Your task to perform on an android device: read, delete, or share a saved page in the chrome app Image 0: 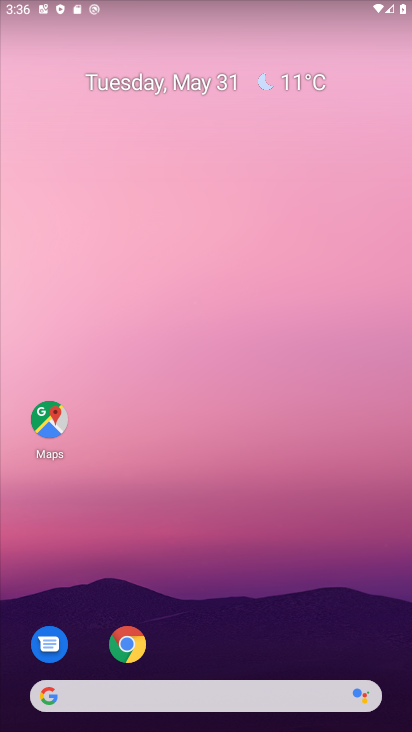
Step 0: click (121, 633)
Your task to perform on an android device: read, delete, or share a saved page in the chrome app Image 1: 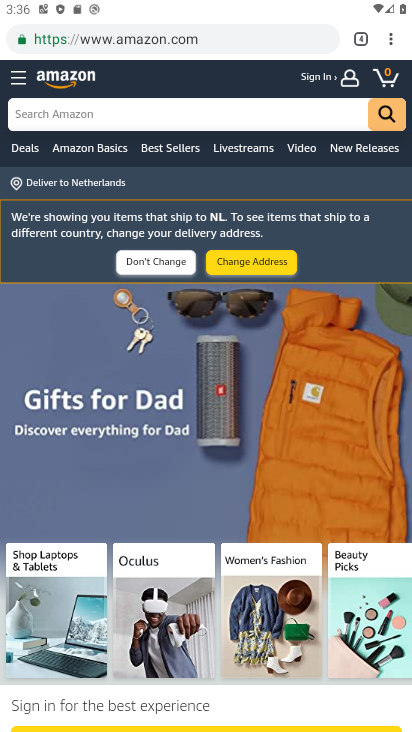
Step 1: click (387, 37)
Your task to perform on an android device: read, delete, or share a saved page in the chrome app Image 2: 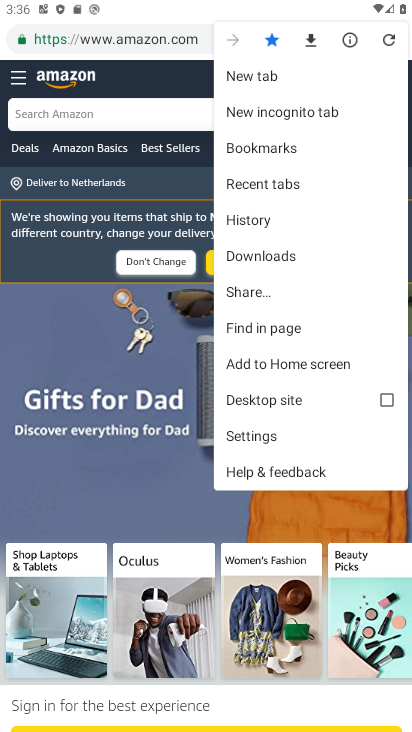
Step 2: click (233, 431)
Your task to perform on an android device: read, delete, or share a saved page in the chrome app Image 3: 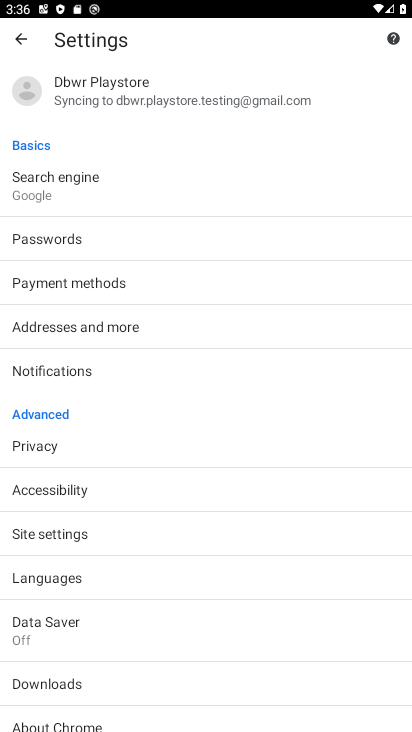
Step 3: drag from (112, 645) to (150, 354)
Your task to perform on an android device: read, delete, or share a saved page in the chrome app Image 4: 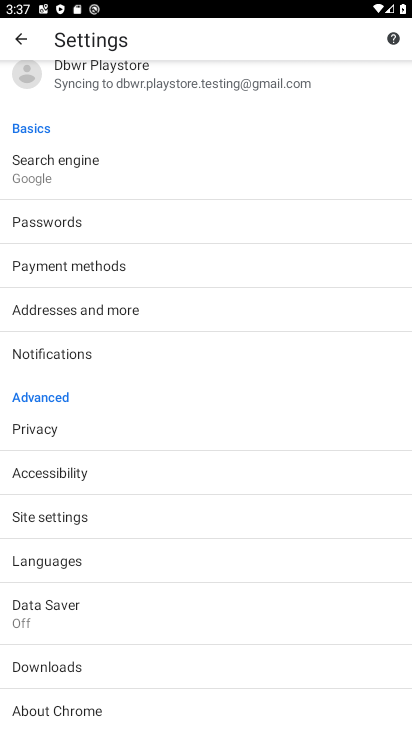
Step 4: drag from (139, 665) to (157, 460)
Your task to perform on an android device: read, delete, or share a saved page in the chrome app Image 5: 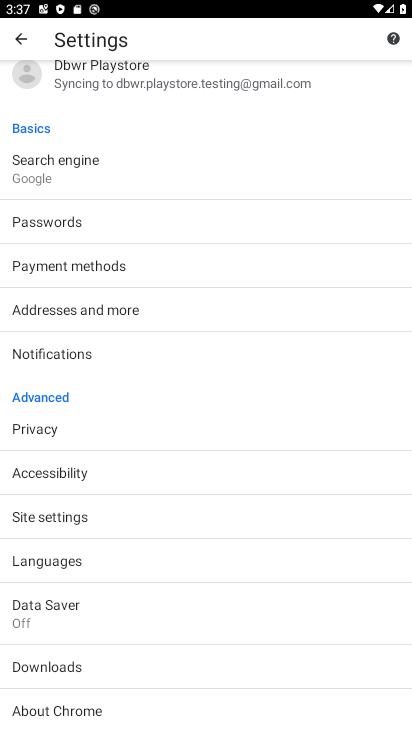
Step 5: click (105, 509)
Your task to perform on an android device: read, delete, or share a saved page in the chrome app Image 6: 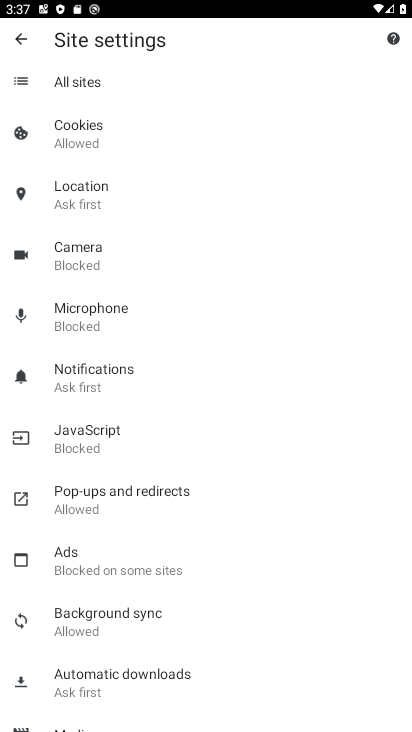
Step 6: task complete